Your task to perform on an android device: Search for logitech g pro on amazon, select the first entry, add it to the cart, then select checkout. Image 0: 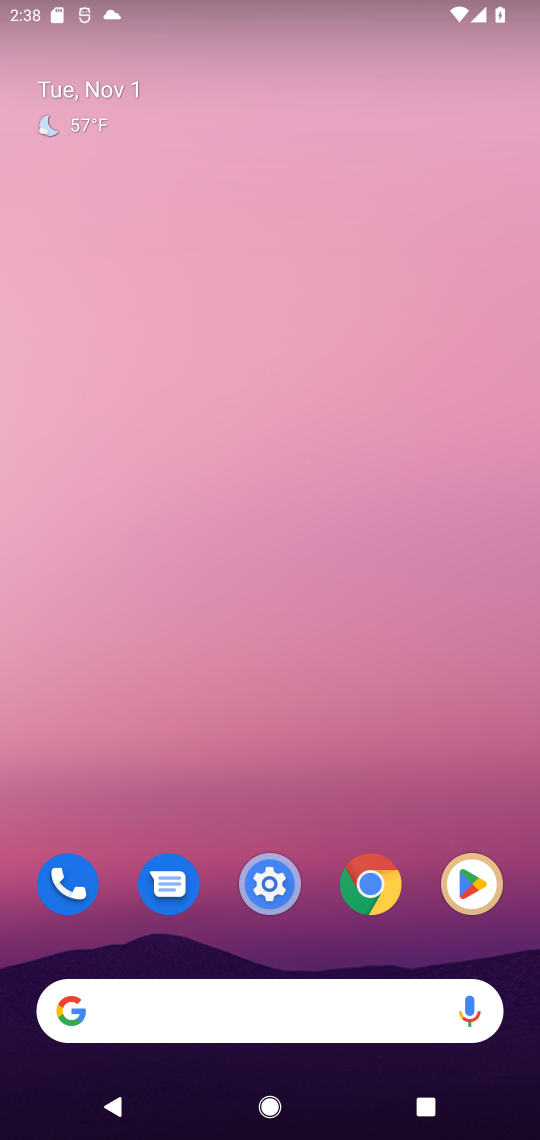
Step 0: press home button
Your task to perform on an android device: Search for logitech g pro on amazon, select the first entry, add it to the cart, then select checkout. Image 1: 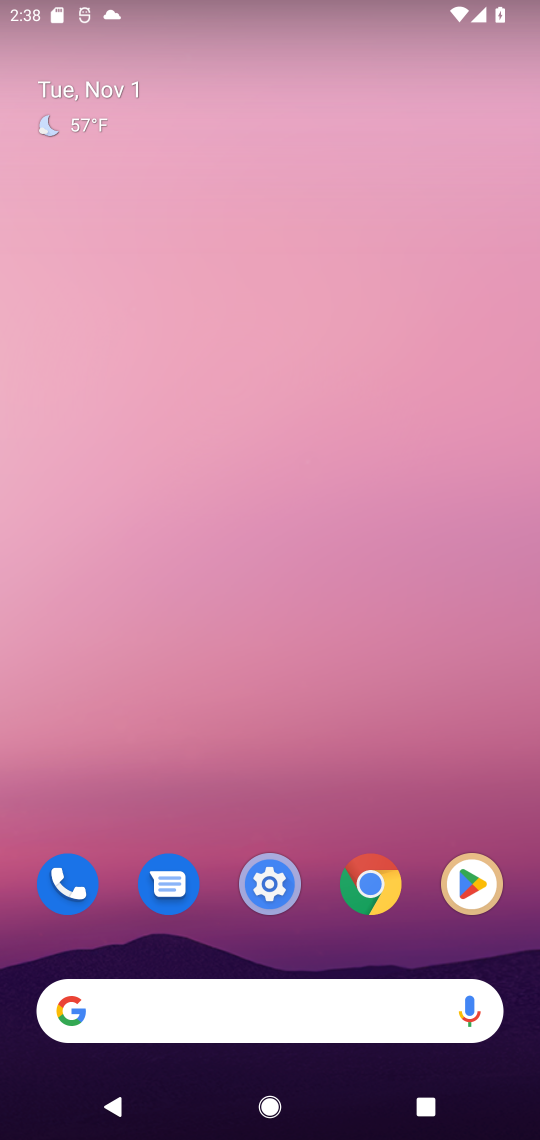
Step 1: click (102, 997)
Your task to perform on an android device: Search for logitech g pro on amazon, select the first entry, add it to the cart, then select checkout. Image 2: 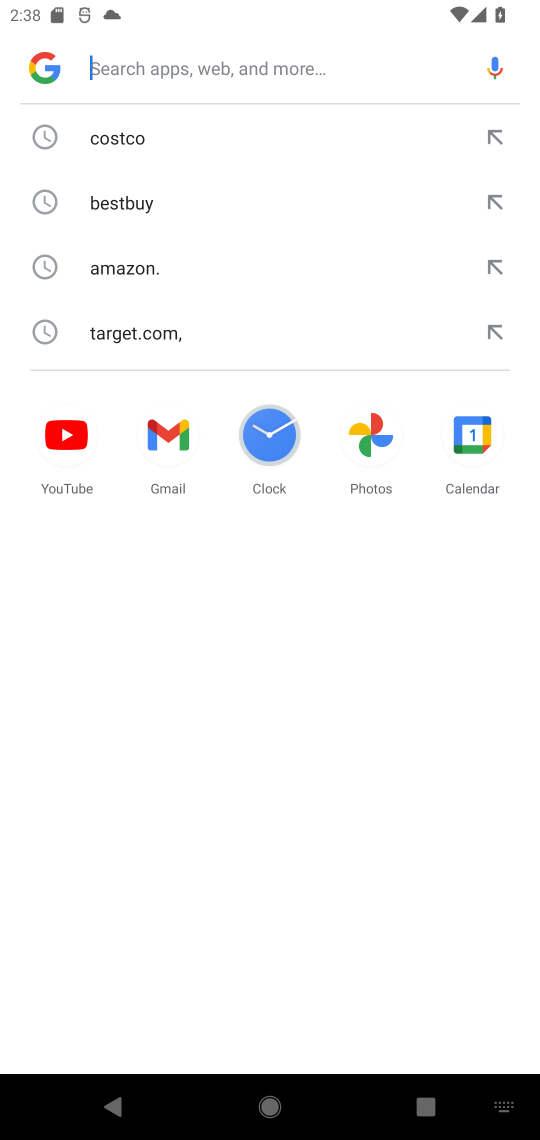
Step 2: type " amazon"
Your task to perform on an android device: Search for logitech g pro on amazon, select the first entry, add it to the cart, then select checkout. Image 3: 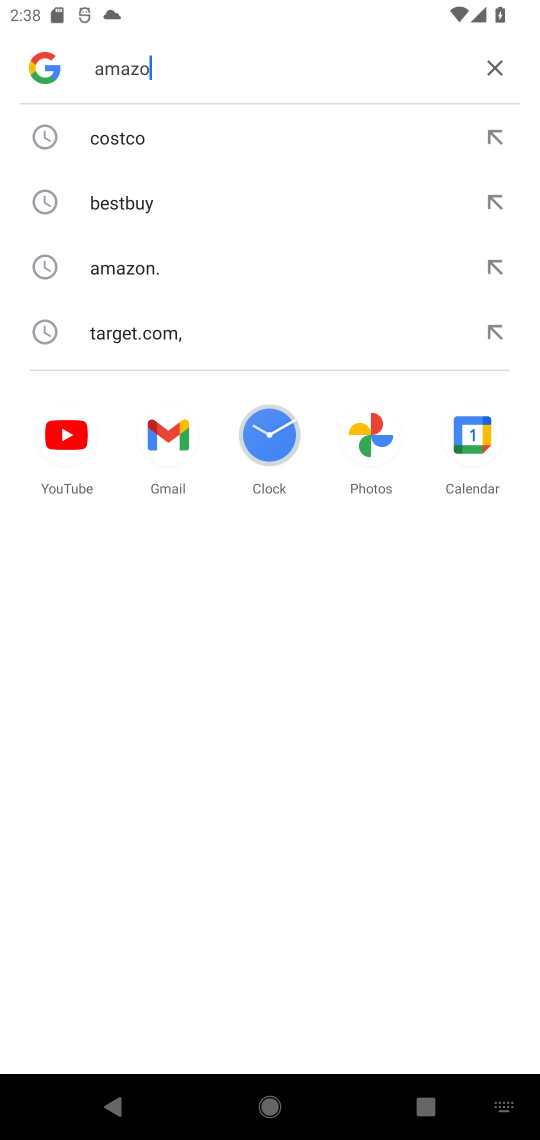
Step 3: press enter
Your task to perform on an android device: Search for logitech g pro on amazon, select the first entry, add it to the cart, then select checkout. Image 4: 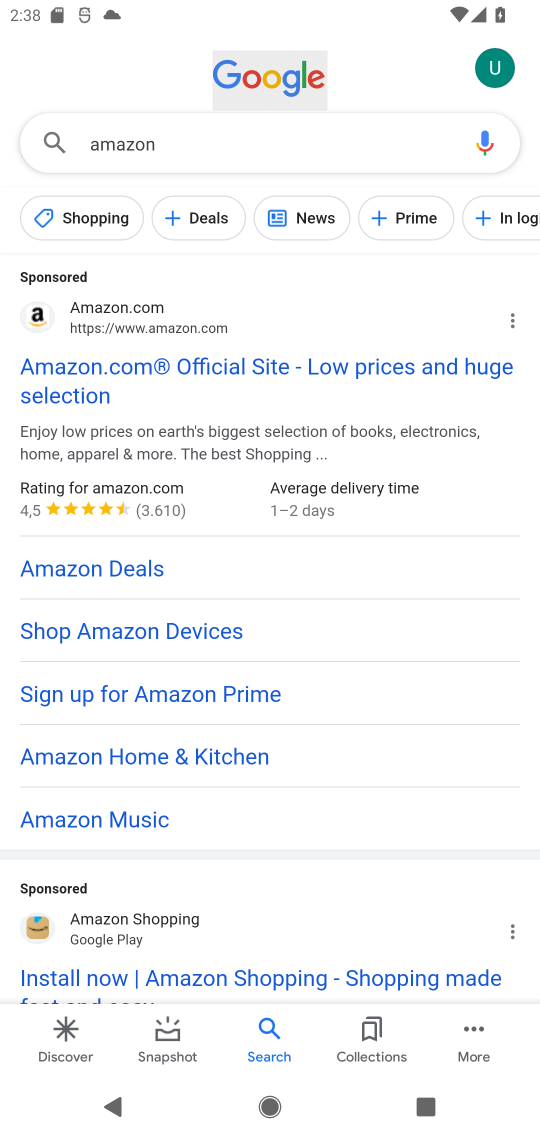
Step 4: click (85, 372)
Your task to perform on an android device: Search for logitech g pro on amazon, select the first entry, add it to the cart, then select checkout. Image 5: 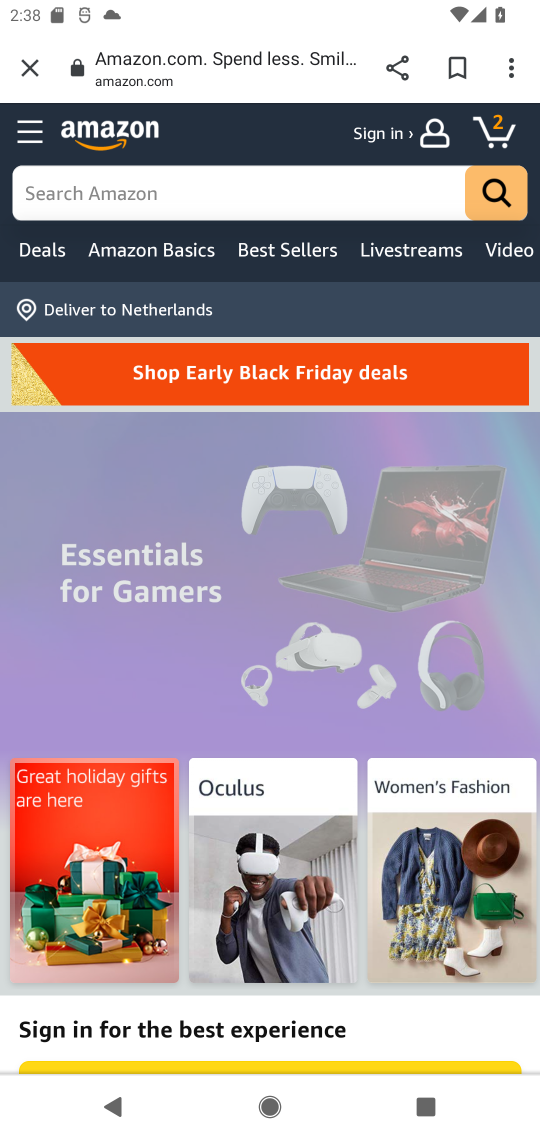
Step 5: click (79, 194)
Your task to perform on an android device: Search for logitech g pro on amazon, select the first entry, add it to the cart, then select checkout. Image 6: 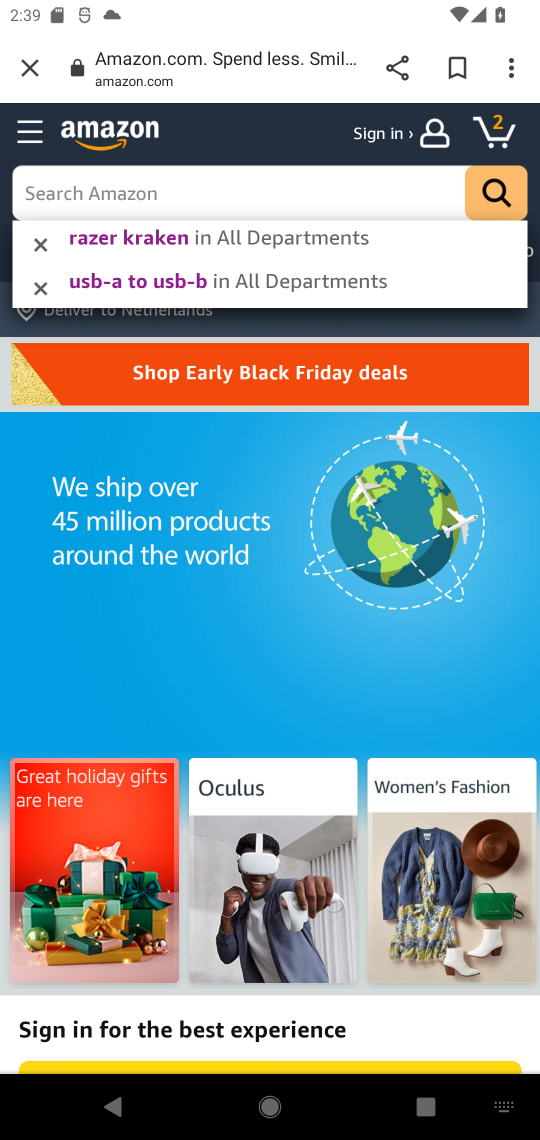
Step 6: press enter
Your task to perform on an android device: Search for logitech g pro on amazon, select the first entry, add it to the cart, then select checkout. Image 7: 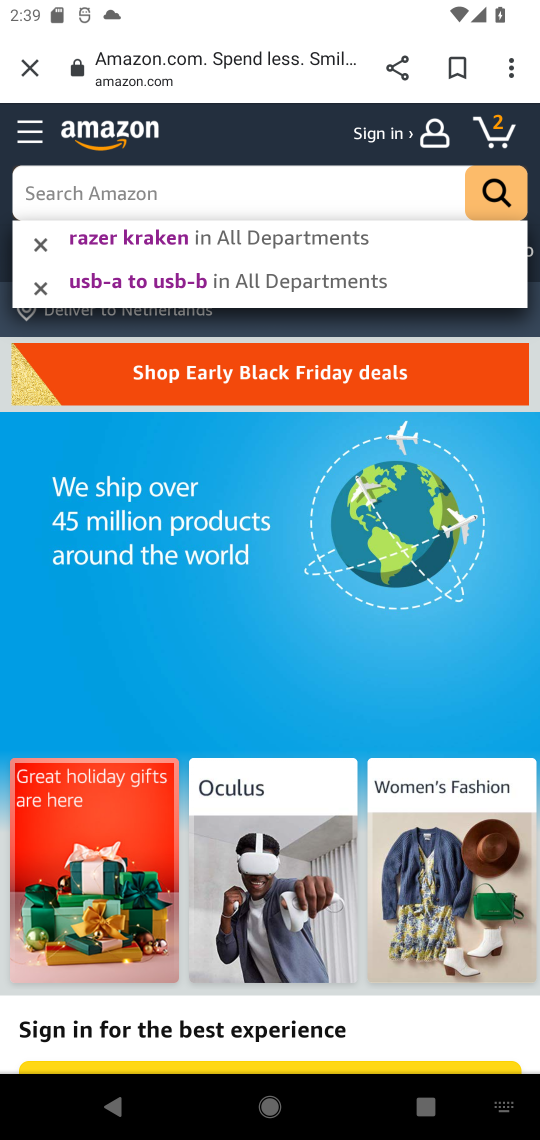
Step 7: type "logitech g pro "
Your task to perform on an android device: Search for logitech g pro on amazon, select the first entry, add it to the cart, then select checkout. Image 8: 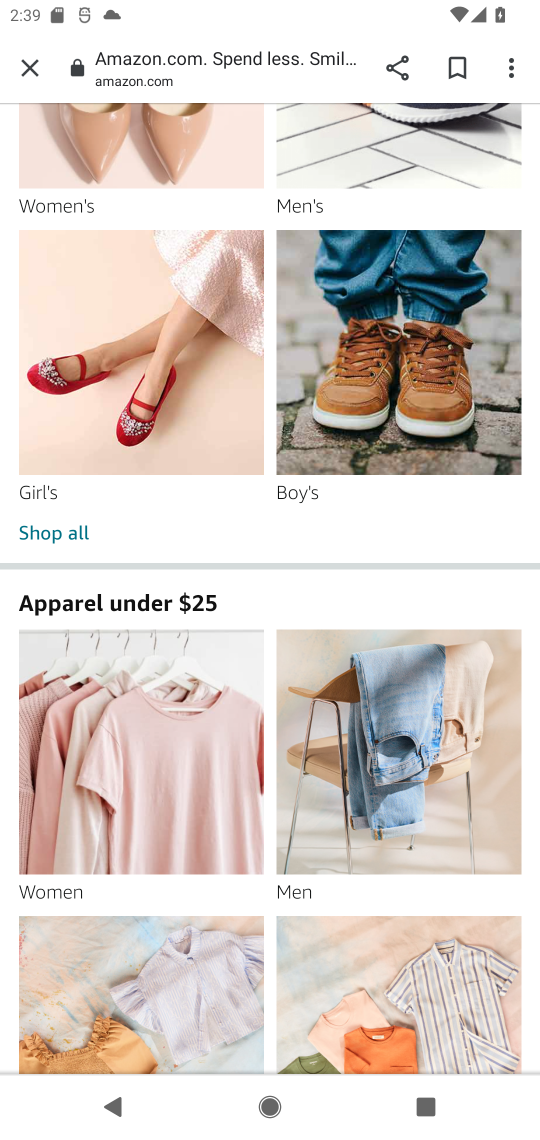
Step 8: drag from (327, 268) to (246, 811)
Your task to perform on an android device: Search for logitech g pro on amazon, select the first entry, add it to the cart, then select checkout. Image 9: 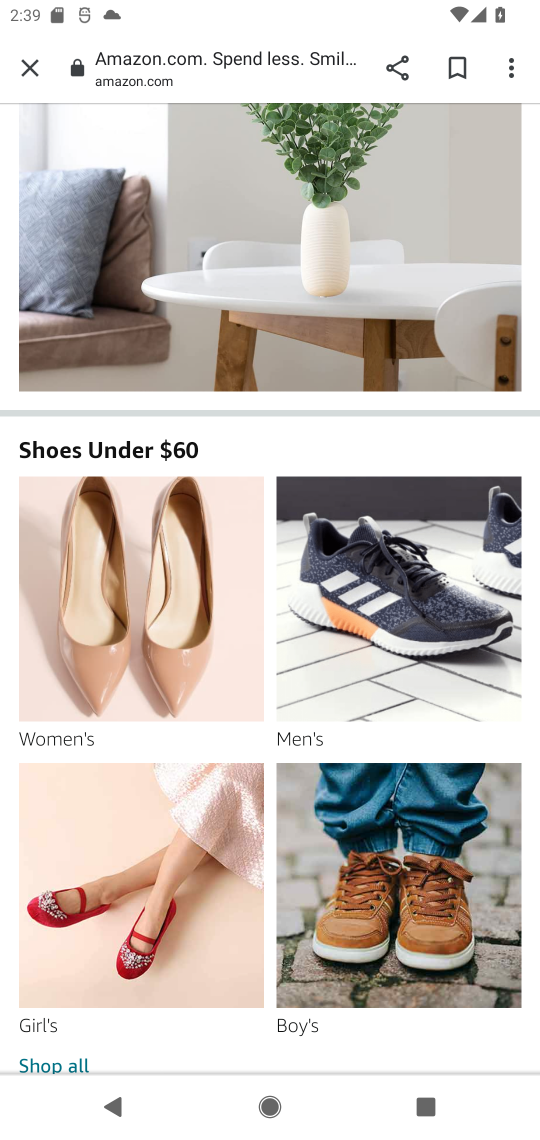
Step 9: drag from (315, 152) to (223, 816)
Your task to perform on an android device: Search for logitech g pro on amazon, select the first entry, add it to the cart, then select checkout. Image 10: 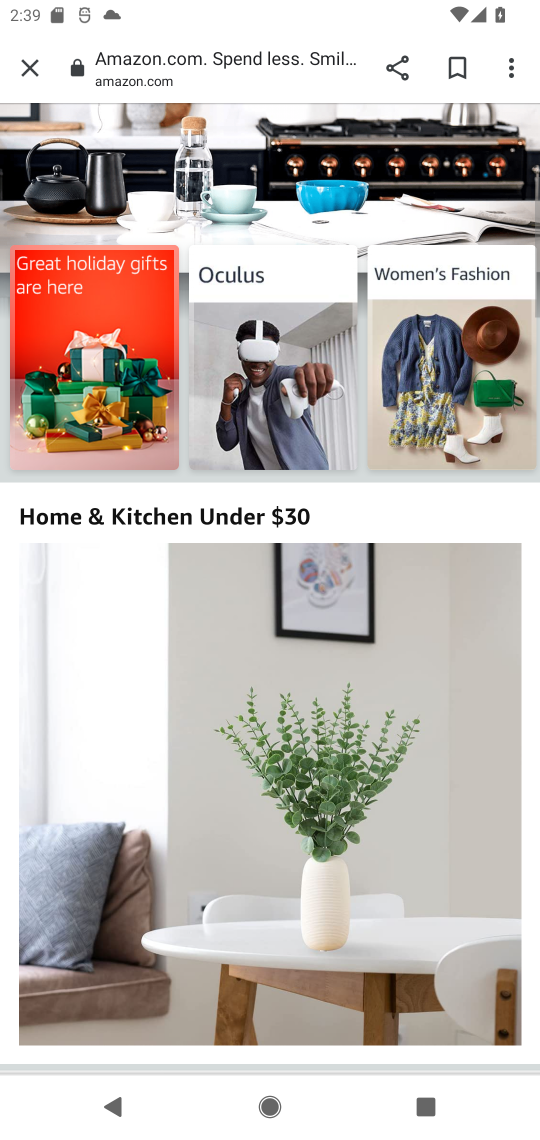
Step 10: drag from (338, 171) to (230, 858)
Your task to perform on an android device: Search for logitech g pro on amazon, select the first entry, add it to the cart, then select checkout. Image 11: 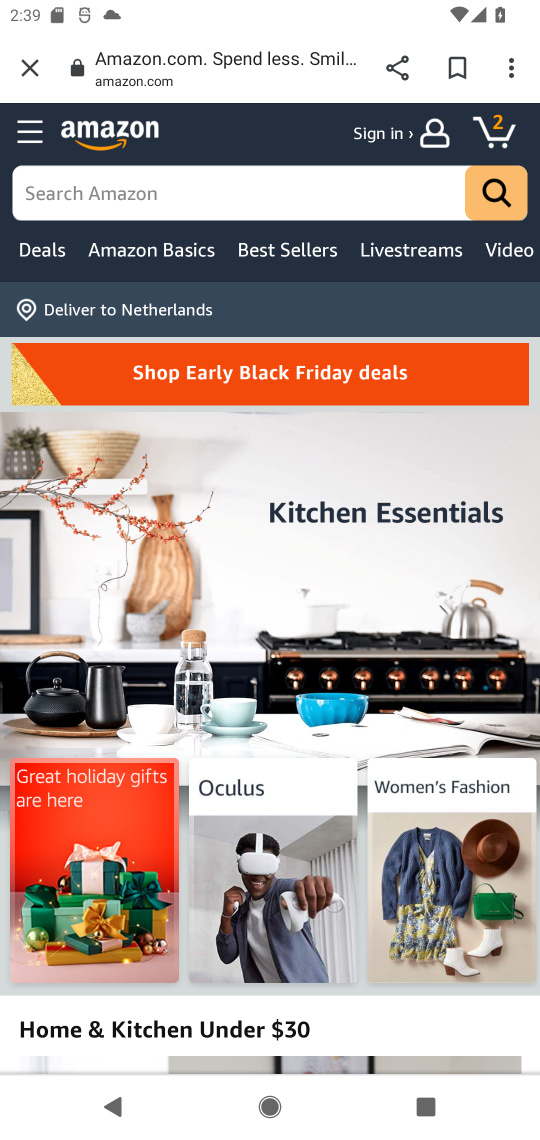
Step 11: click (134, 183)
Your task to perform on an android device: Search for logitech g pro on amazon, select the first entry, add it to the cart, then select checkout. Image 12: 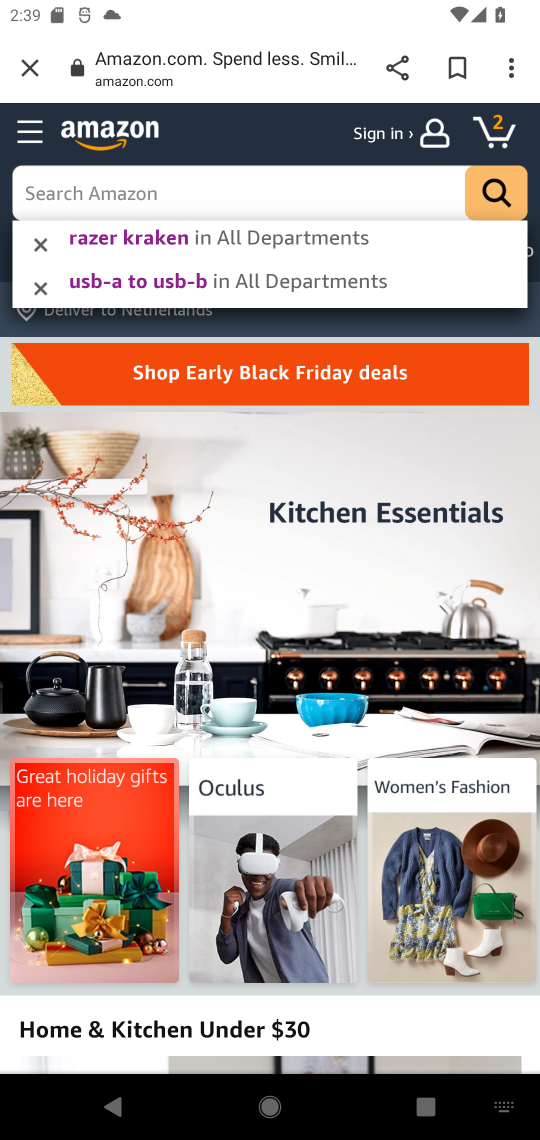
Step 12: type "logitech g pro "
Your task to perform on an android device: Search for logitech g pro on amazon, select the first entry, add it to the cart, then select checkout. Image 13: 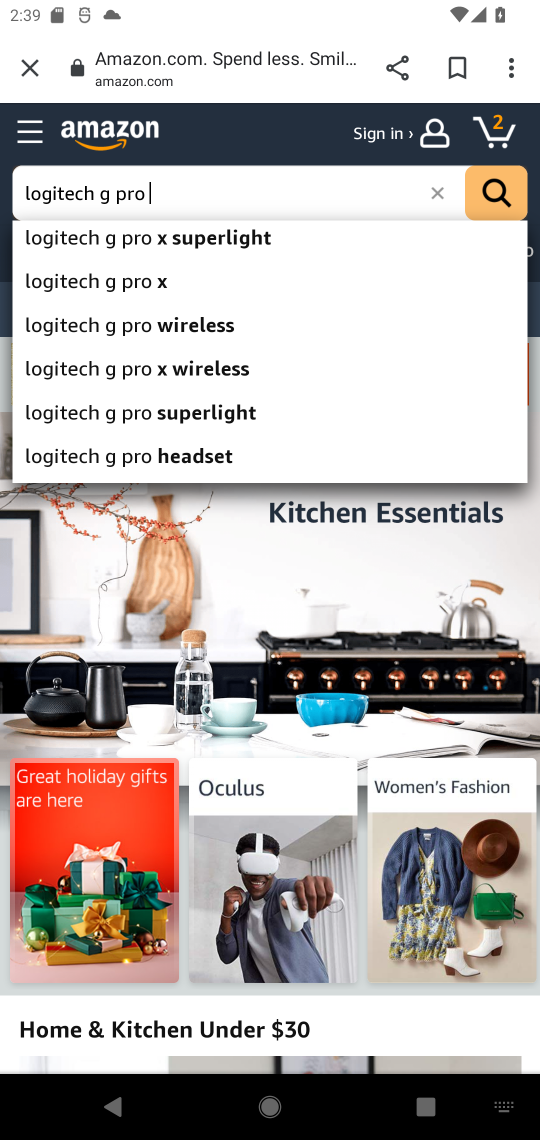
Step 13: click (495, 191)
Your task to perform on an android device: Search for logitech g pro on amazon, select the first entry, add it to the cart, then select checkout. Image 14: 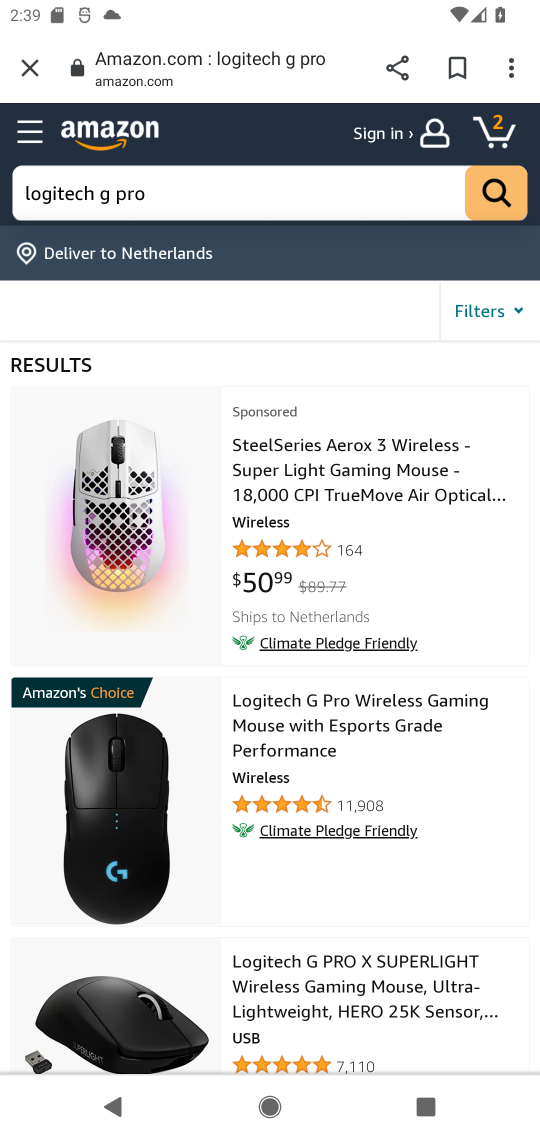
Step 14: click (319, 726)
Your task to perform on an android device: Search for logitech g pro on amazon, select the first entry, add it to the cart, then select checkout. Image 15: 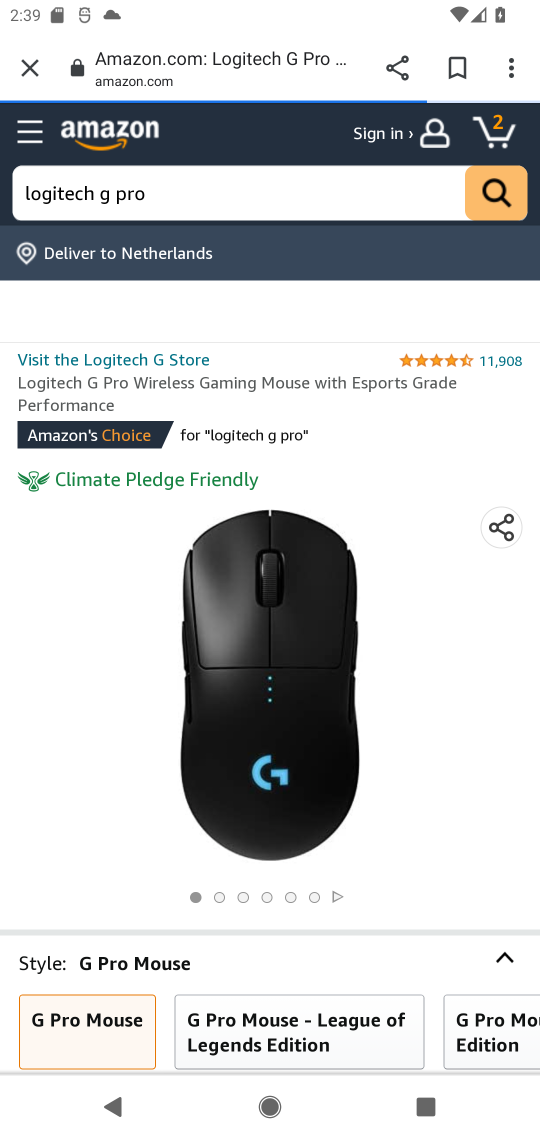
Step 15: drag from (322, 881) to (330, 393)
Your task to perform on an android device: Search for logitech g pro on amazon, select the first entry, add it to the cart, then select checkout. Image 16: 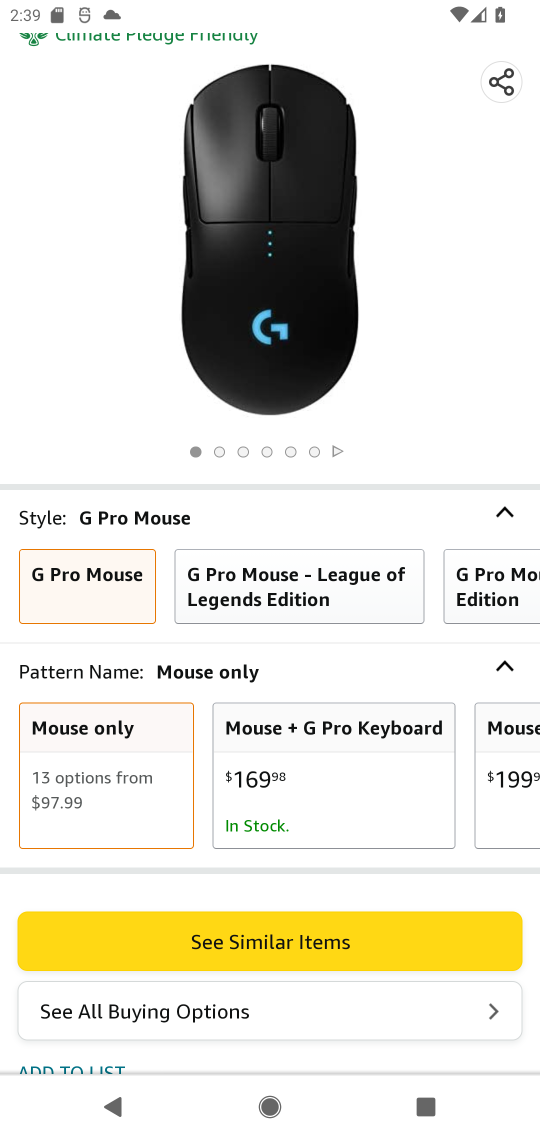
Step 16: drag from (323, 892) to (355, 273)
Your task to perform on an android device: Search for logitech g pro on amazon, select the first entry, add it to the cart, then select checkout. Image 17: 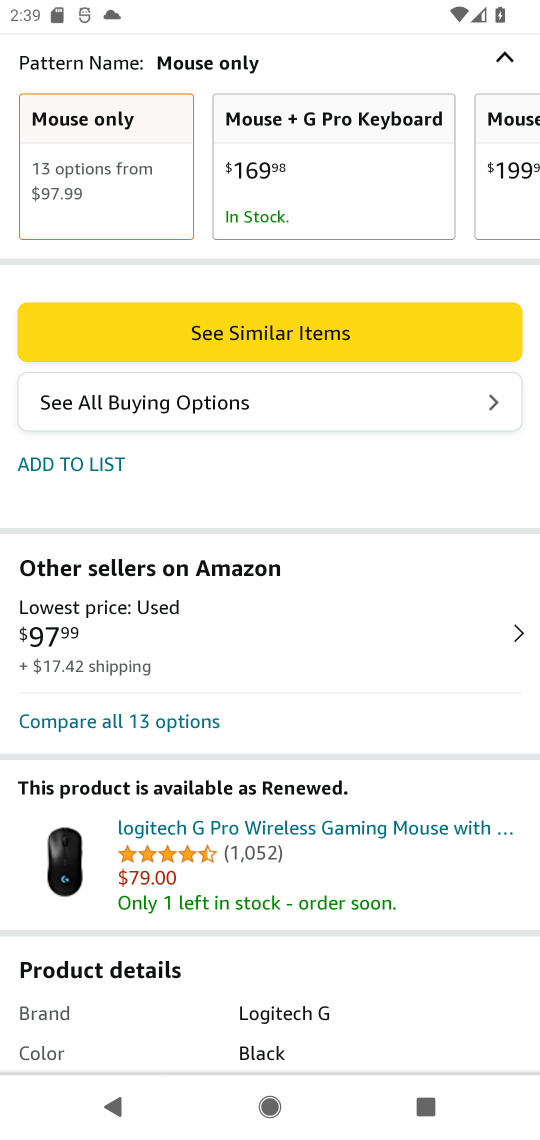
Step 17: drag from (284, 892) to (290, 382)
Your task to perform on an android device: Search for logitech g pro on amazon, select the first entry, add it to the cart, then select checkout. Image 18: 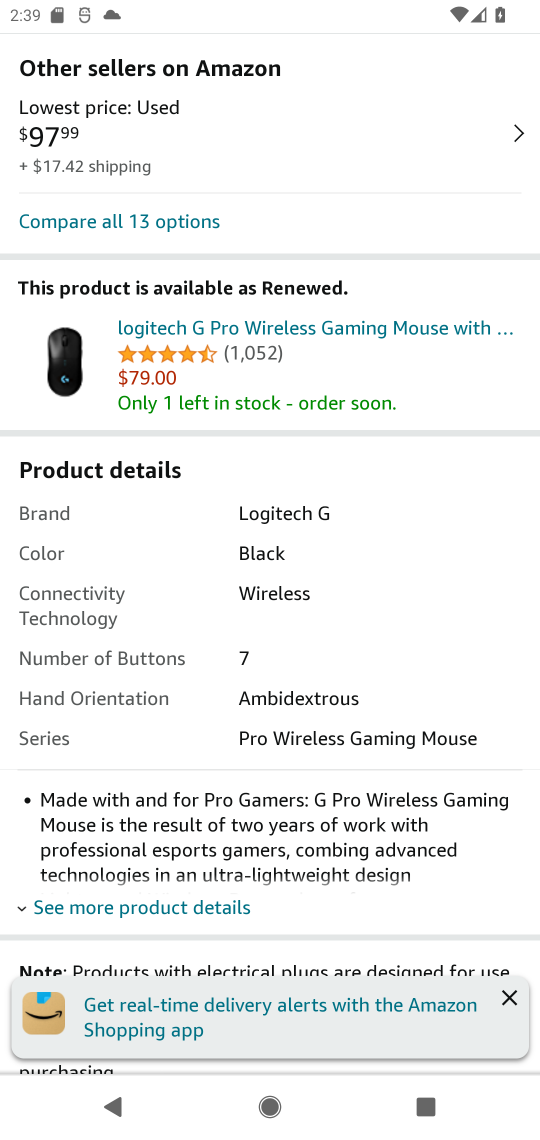
Step 18: drag from (271, 852) to (303, 275)
Your task to perform on an android device: Search for logitech g pro on amazon, select the first entry, add it to the cart, then select checkout. Image 19: 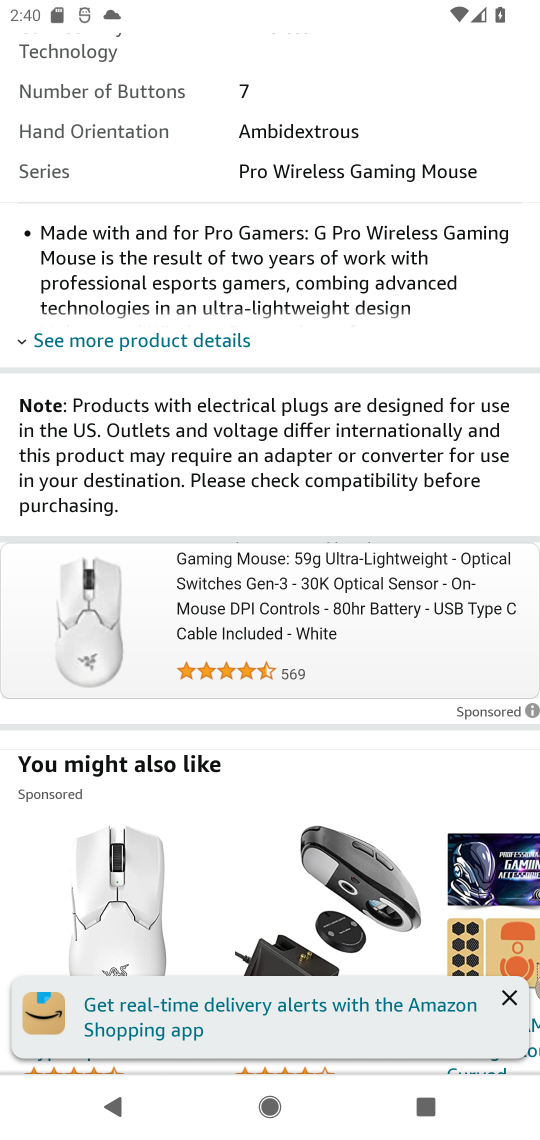
Step 19: drag from (237, 721) to (309, 207)
Your task to perform on an android device: Search for logitech g pro on amazon, select the first entry, add it to the cart, then select checkout. Image 20: 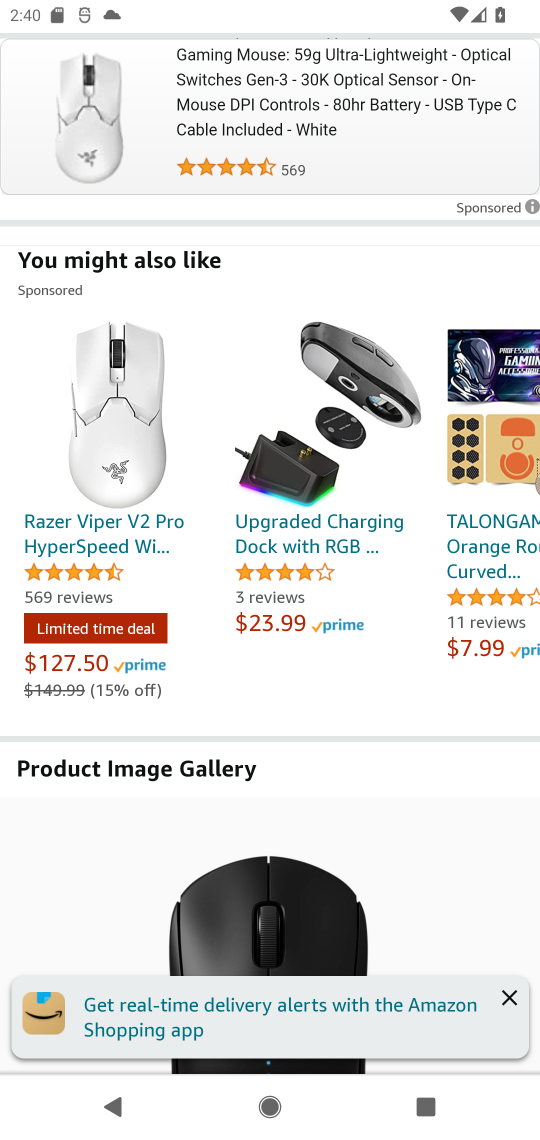
Step 20: click (515, 989)
Your task to perform on an android device: Search for logitech g pro on amazon, select the first entry, add it to the cart, then select checkout. Image 21: 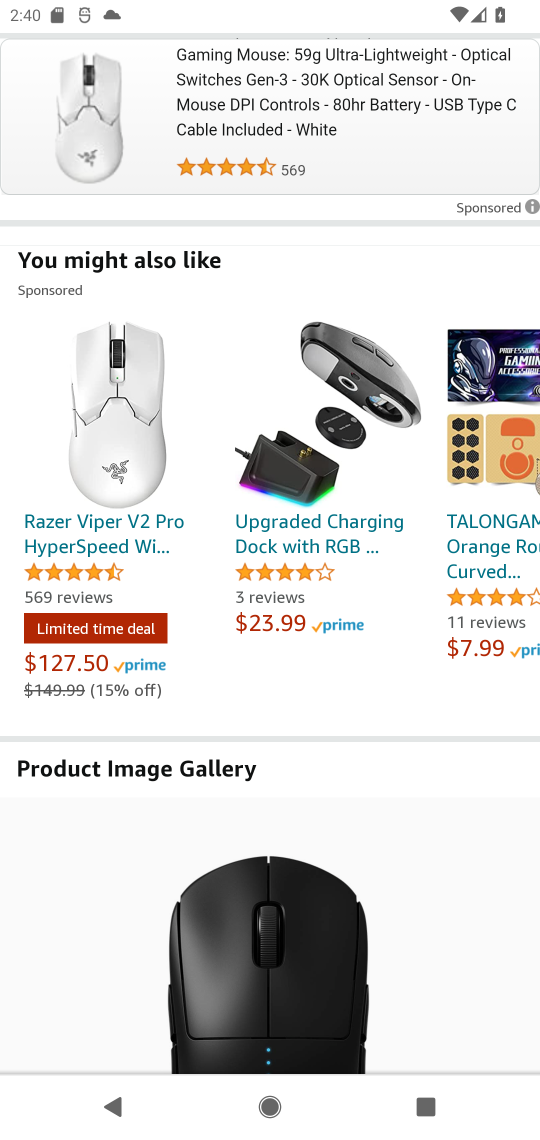
Step 21: task complete